Your task to perform on an android device: turn on showing notifications on the lock screen Image 0: 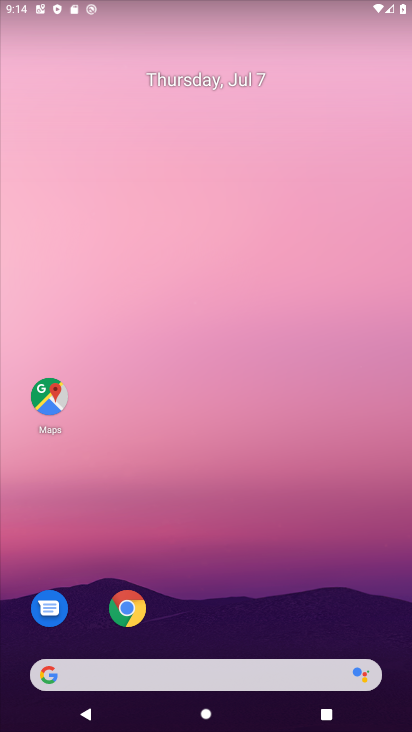
Step 0: drag from (242, 607) to (214, 91)
Your task to perform on an android device: turn on showing notifications on the lock screen Image 1: 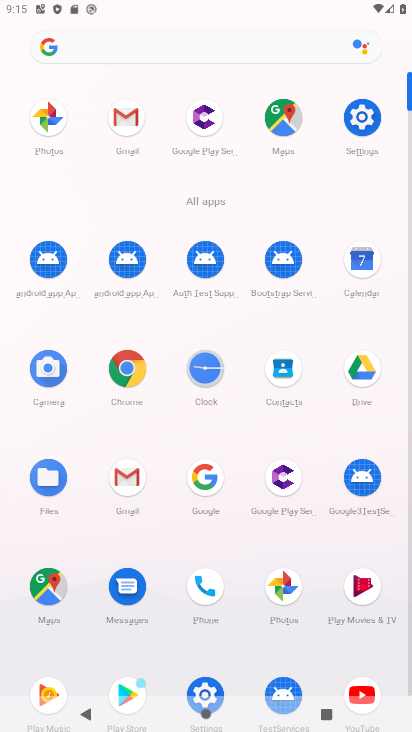
Step 1: click (363, 114)
Your task to perform on an android device: turn on showing notifications on the lock screen Image 2: 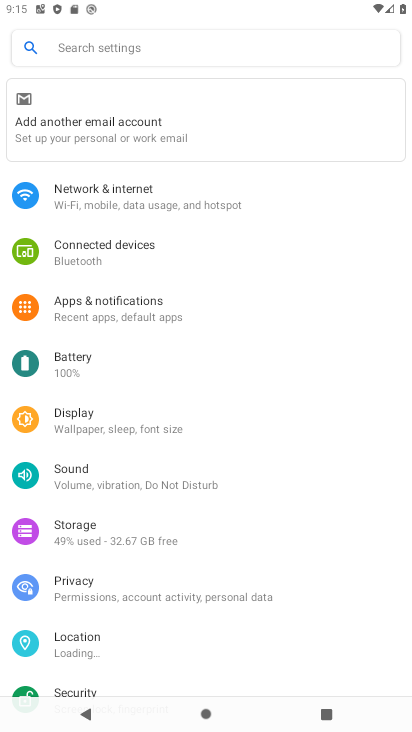
Step 2: click (147, 306)
Your task to perform on an android device: turn on showing notifications on the lock screen Image 3: 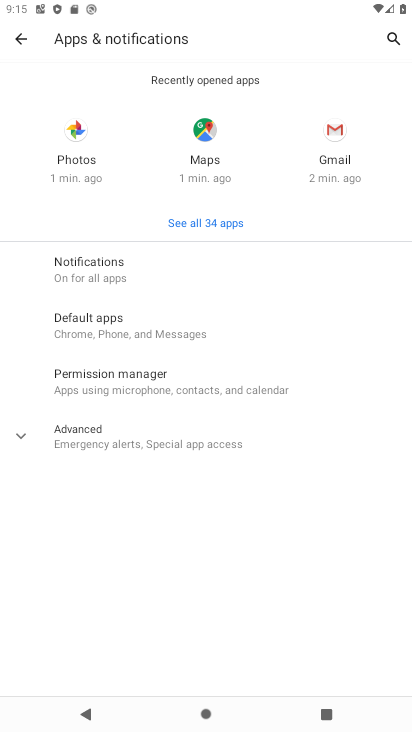
Step 3: click (126, 271)
Your task to perform on an android device: turn on showing notifications on the lock screen Image 4: 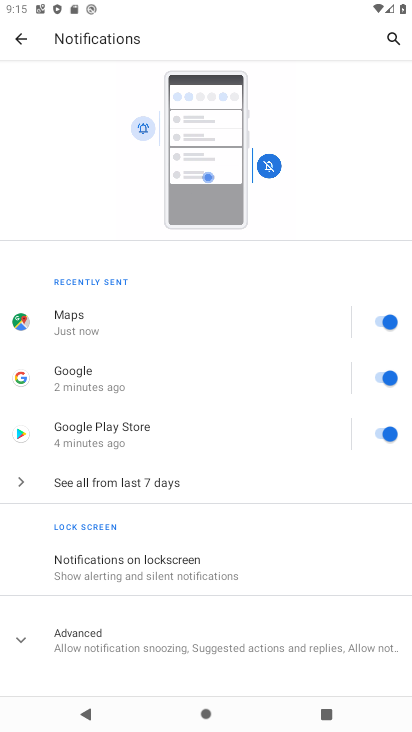
Step 4: click (127, 566)
Your task to perform on an android device: turn on showing notifications on the lock screen Image 5: 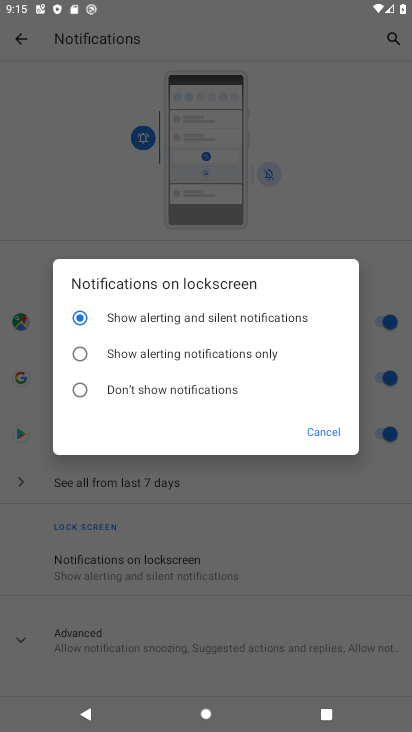
Step 5: task complete